Your task to perform on an android device: Open Yahoo.com Image 0: 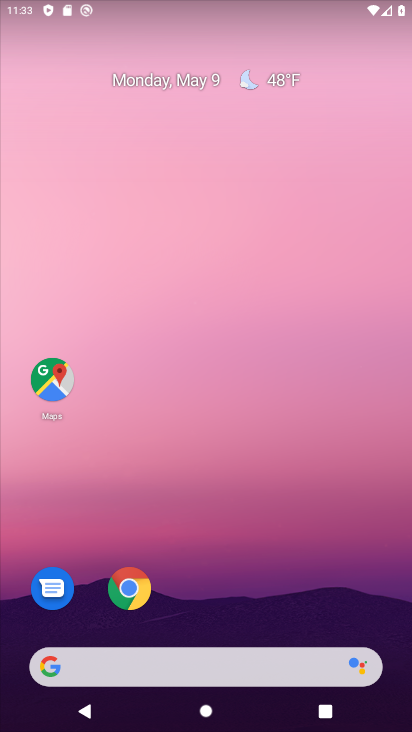
Step 0: drag from (204, 663) to (200, 172)
Your task to perform on an android device: Open Yahoo.com Image 1: 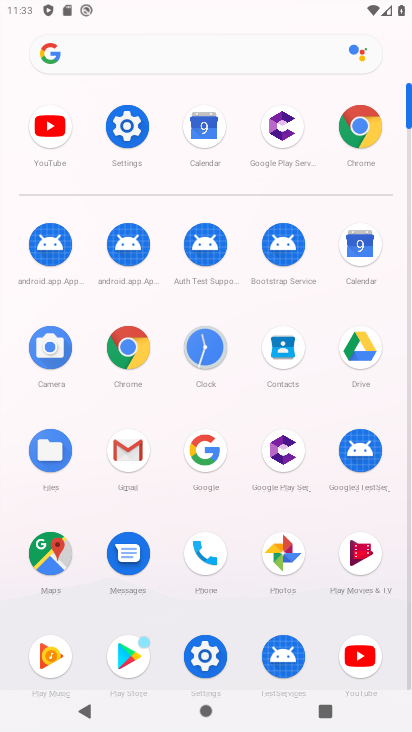
Step 1: click (130, 361)
Your task to perform on an android device: Open Yahoo.com Image 2: 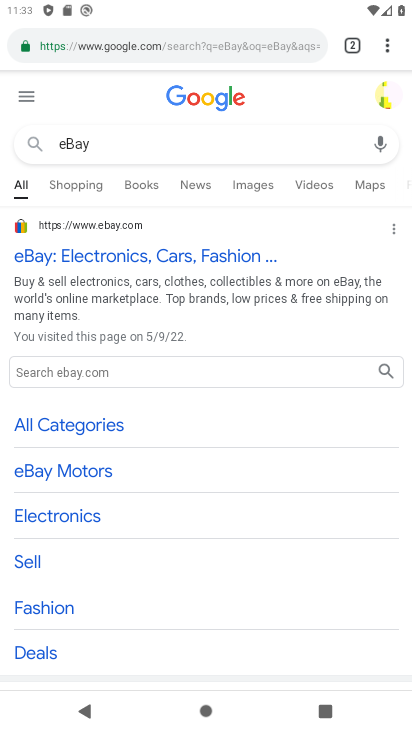
Step 2: click (382, 47)
Your task to perform on an android device: Open Yahoo.com Image 3: 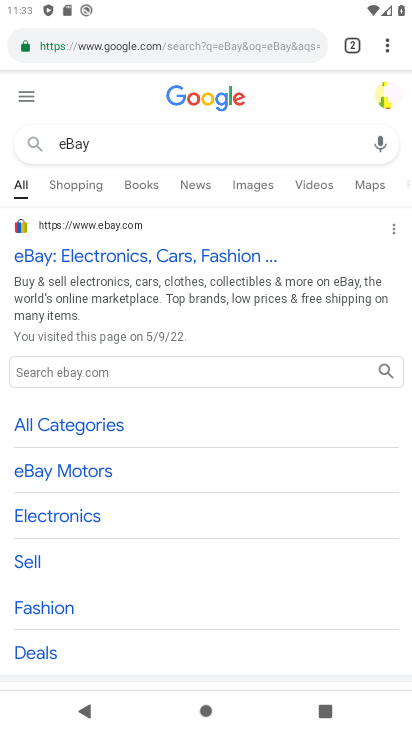
Step 3: click (371, 34)
Your task to perform on an android device: Open Yahoo.com Image 4: 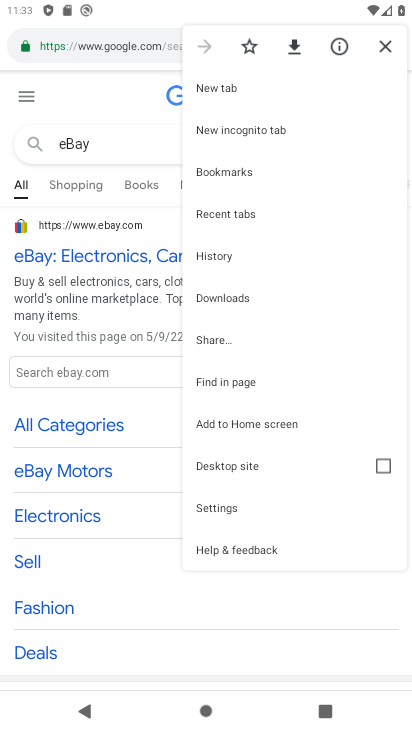
Step 4: click (236, 88)
Your task to perform on an android device: Open Yahoo.com Image 5: 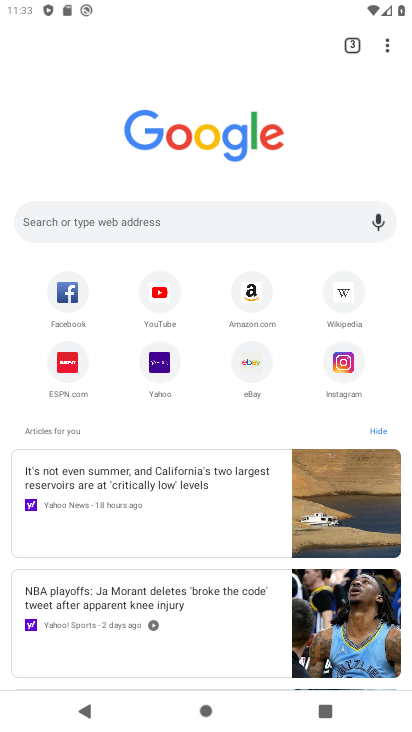
Step 5: click (152, 360)
Your task to perform on an android device: Open Yahoo.com Image 6: 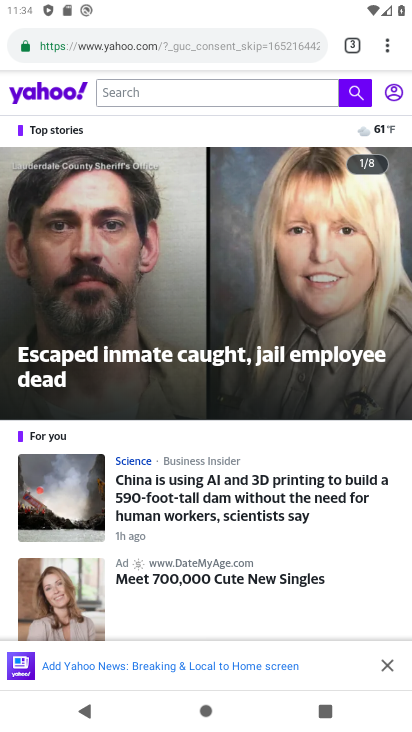
Step 6: task complete